Your task to perform on an android device: check battery use Image 0: 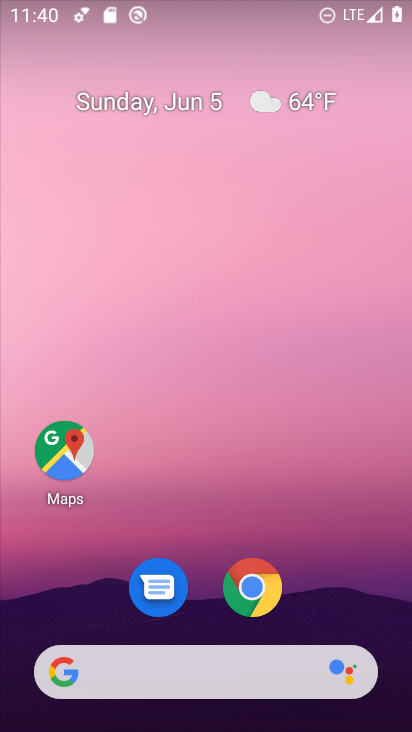
Step 0: drag from (230, 13) to (173, 602)
Your task to perform on an android device: check battery use Image 1: 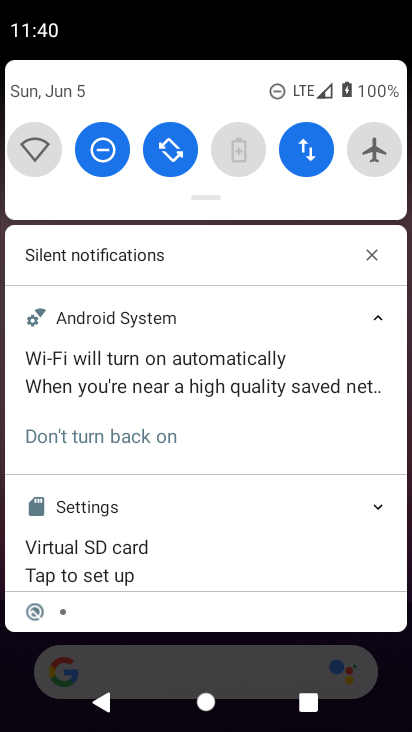
Step 1: click (244, 153)
Your task to perform on an android device: check battery use Image 2: 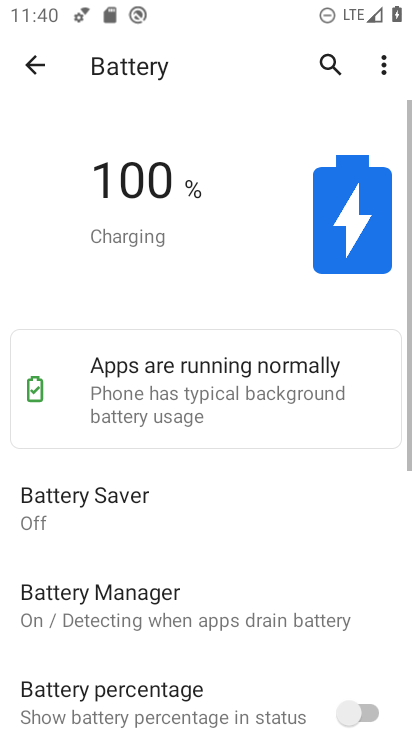
Step 2: task complete